Your task to perform on an android device: Empty the shopping cart on costco.com. Image 0: 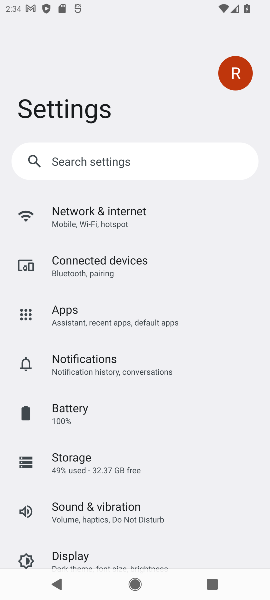
Step 0: press home button
Your task to perform on an android device: Empty the shopping cart on costco.com. Image 1: 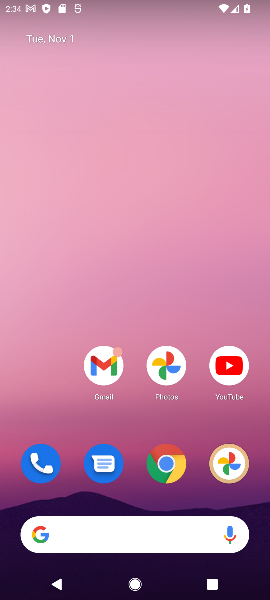
Step 1: drag from (131, 439) to (170, 77)
Your task to perform on an android device: Empty the shopping cart on costco.com. Image 2: 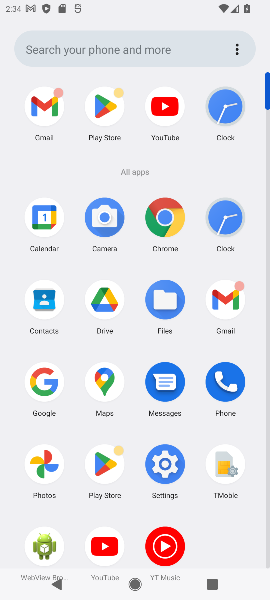
Step 2: click (160, 223)
Your task to perform on an android device: Empty the shopping cart on costco.com. Image 3: 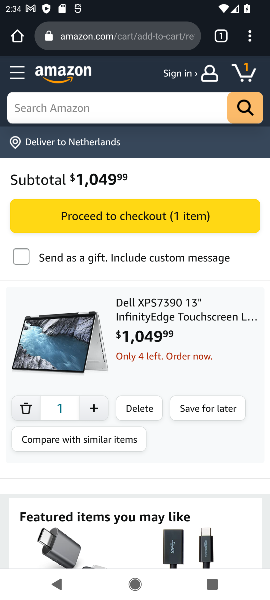
Step 3: click (78, 37)
Your task to perform on an android device: Empty the shopping cart on costco.com. Image 4: 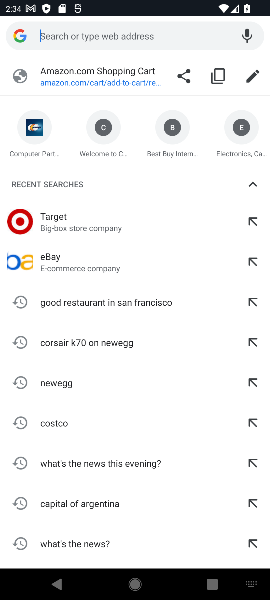
Step 4: type "costco.com"
Your task to perform on an android device: Empty the shopping cart on costco.com. Image 5: 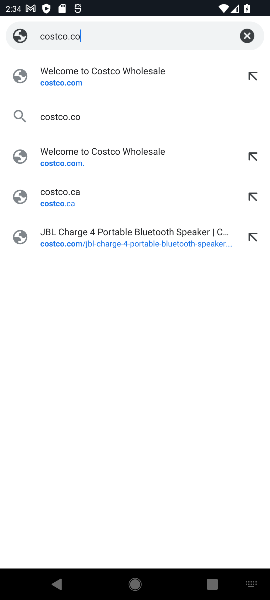
Step 5: press enter
Your task to perform on an android device: Empty the shopping cart on costco.com. Image 6: 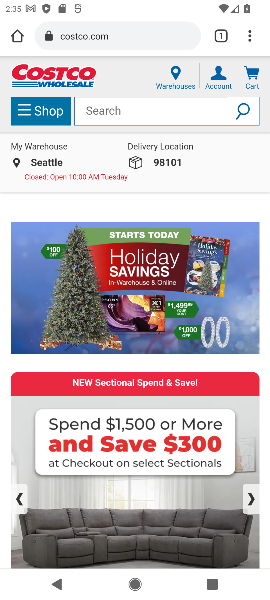
Step 6: click (255, 77)
Your task to perform on an android device: Empty the shopping cart on costco.com. Image 7: 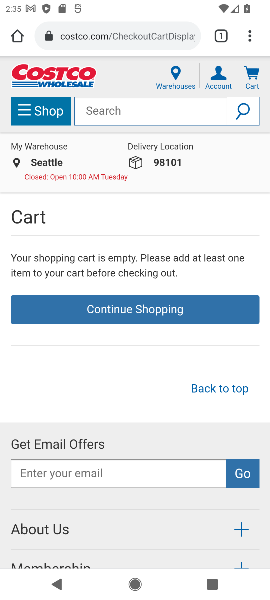
Step 7: task complete